Your task to perform on an android device: Open calendar and show me the third week of next month Image 0: 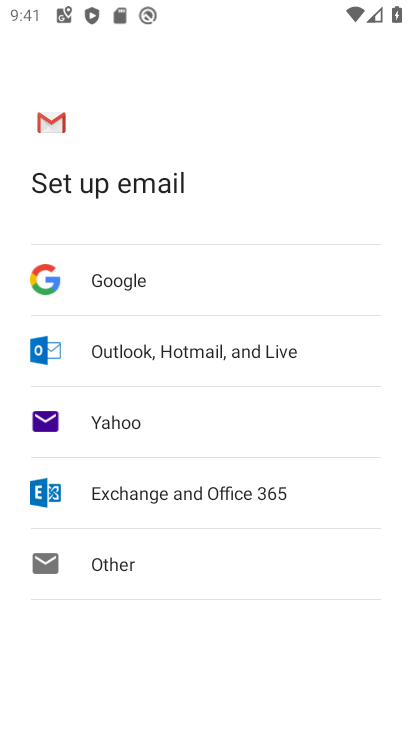
Step 0: press home button
Your task to perform on an android device: Open calendar and show me the third week of next month Image 1: 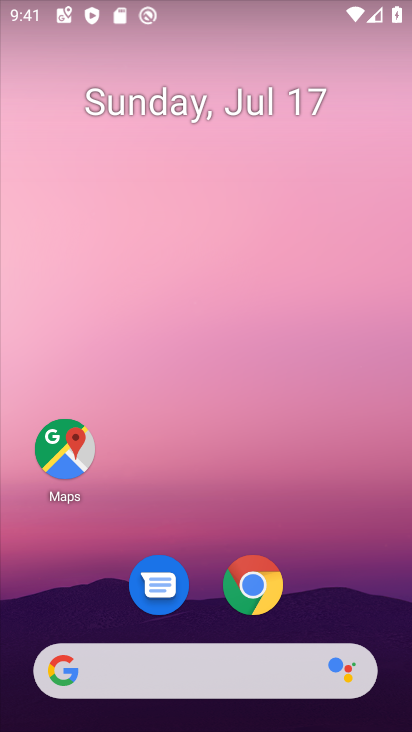
Step 1: drag from (385, 267) to (5, 207)
Your task to perform on an android device: Open calendar and show me the third week of next month Image 2: 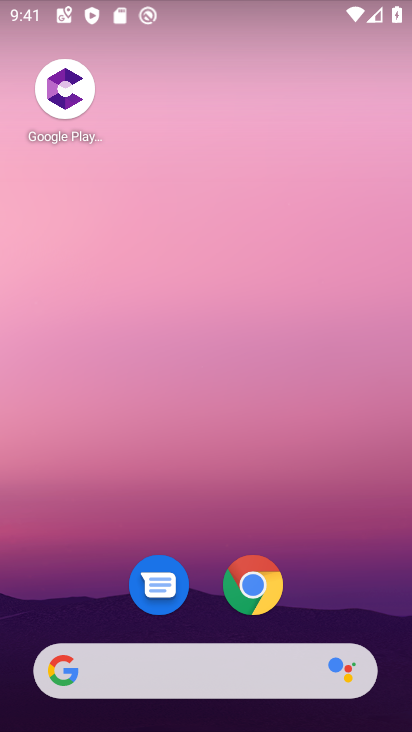
Step 2: drag from (50, 291) to (411, 435)
Your task to perform on an android device: Open calendar and show me the third week of next month Image 3: 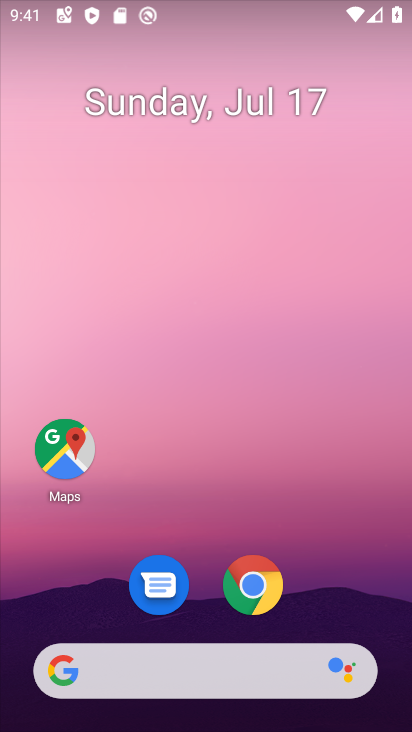
Step 3: drag from (344, 559) to (302, 1)
Your task to perform on an android device: Open calendar and show me the third week of next month Image 4: 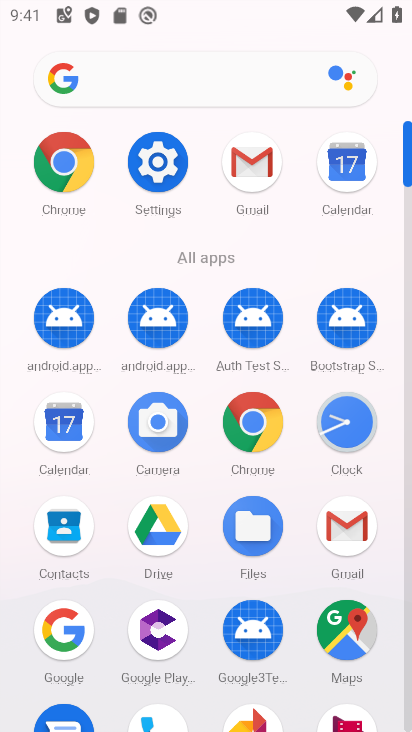
Step 4: click (351, 174)
Your task to perform on an android device: Open calendar and show me the third week of next month Image 5: 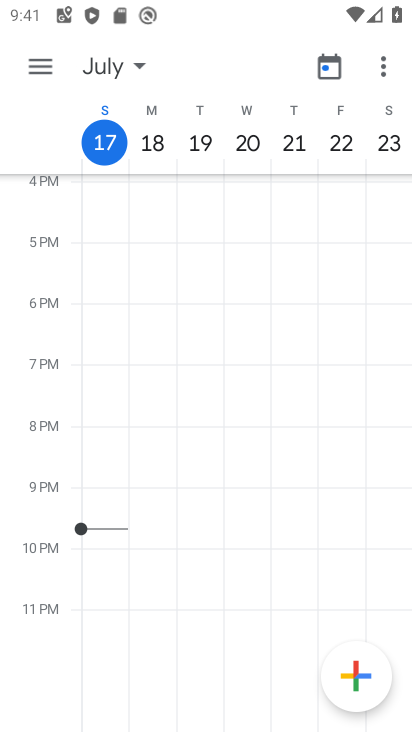
Step 5: task complete